Your task to perform on an android device: turn off location Image 0: 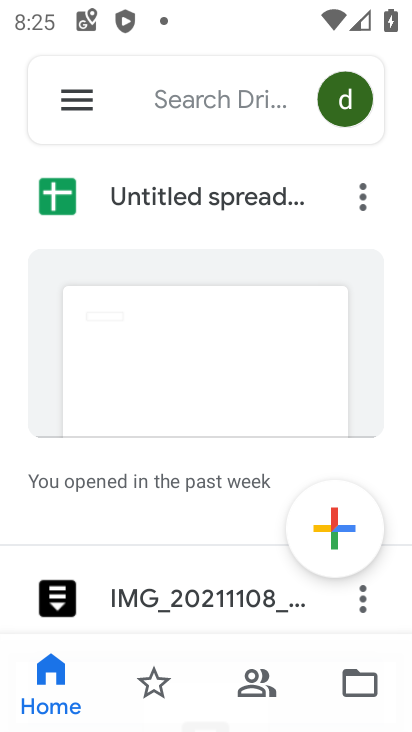
Step 0: press home button
Your task to perform on an android device: turn off location Image 1: 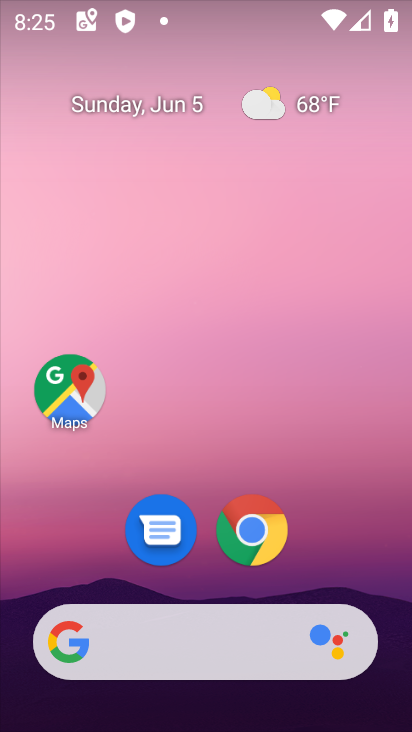
Step 1: drag from (390, 610) to (319, 92)
Your task to perform on an android device: turn off location Image 2: 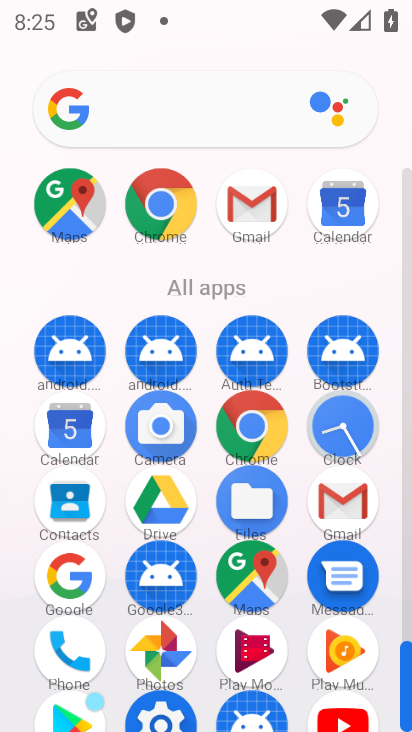
Step 2: drag from (405, 621) to (393, 526)
Your task to perform on an android device: turn off location Image 3: 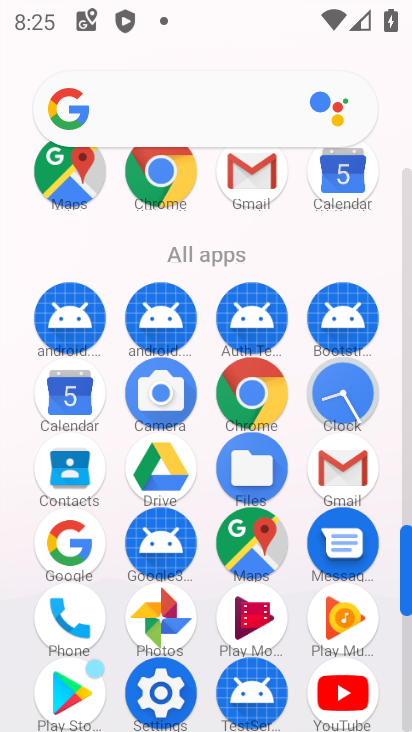
Step 3: click (161, 691)
Your task to perform on an android device: turn off location Image 4: 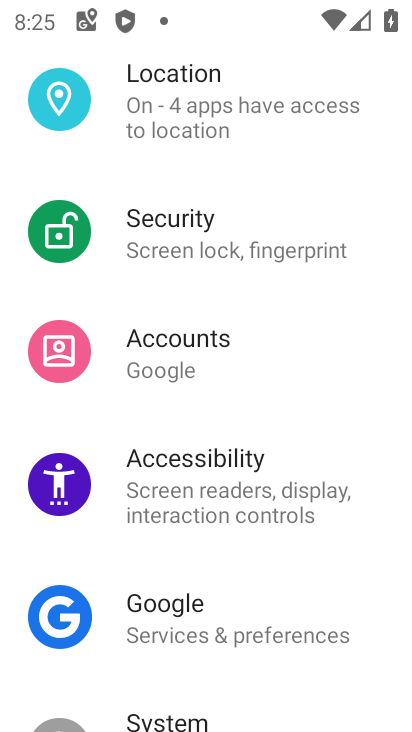
Step 4: drag from (370, 151) to (363, 468)
Your task to perform on an android device: turn off location Image 5: 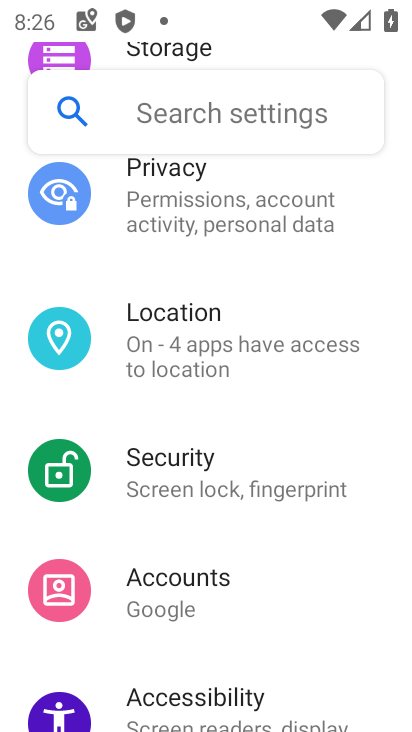
Step 5: click (154, 309)
Your task to perform on an android device: turn off location Image 6: 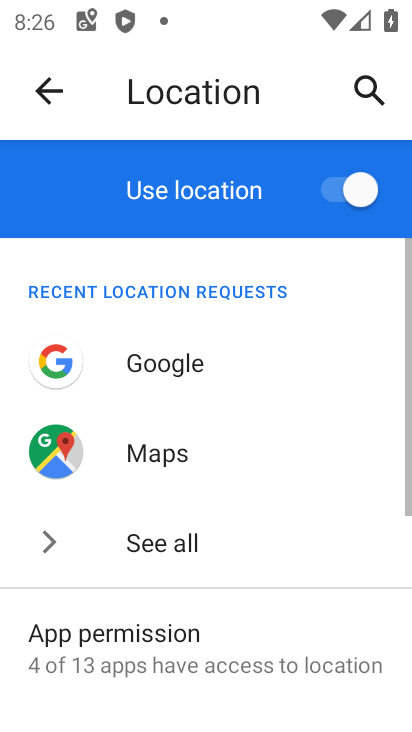
Step 6: click (324, 194)
Your task to perform on an android device: turn off location Image 7: 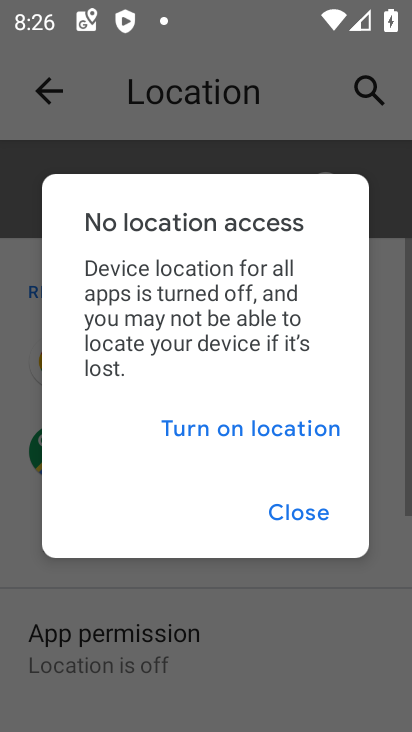
Step 7: task complete